Your task to perform on an android device: snooze an email in the gmail app Image 0: 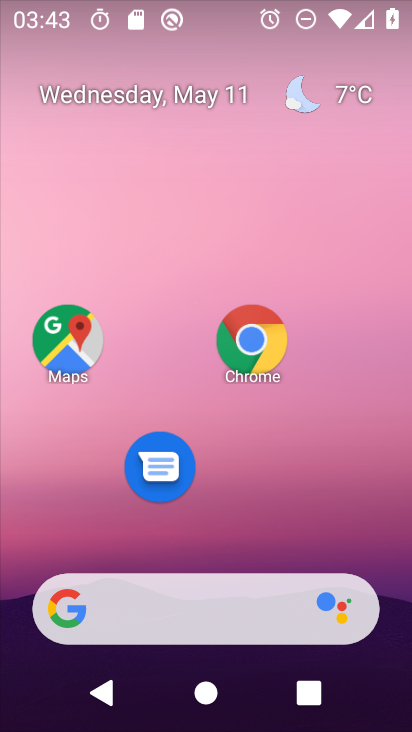
Step 0: drag from (164, 610) to (251, 269)
Your task to perform on an android device: snooze an email in the gmail app Image 1: 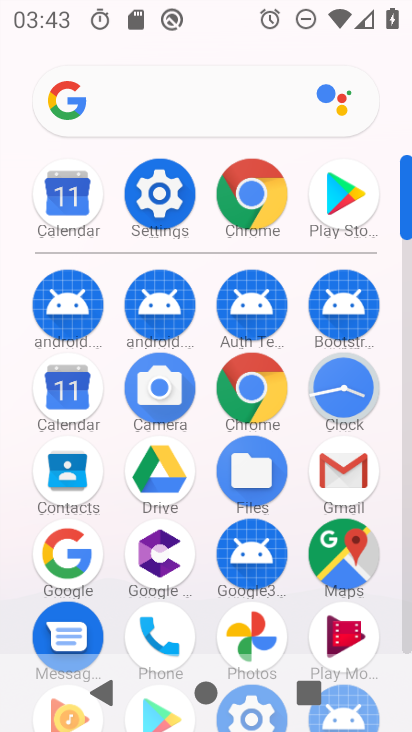
Step 1: click (352, 483)
Your task to perform on an android device: snooze an email in the gmail app Image 2: 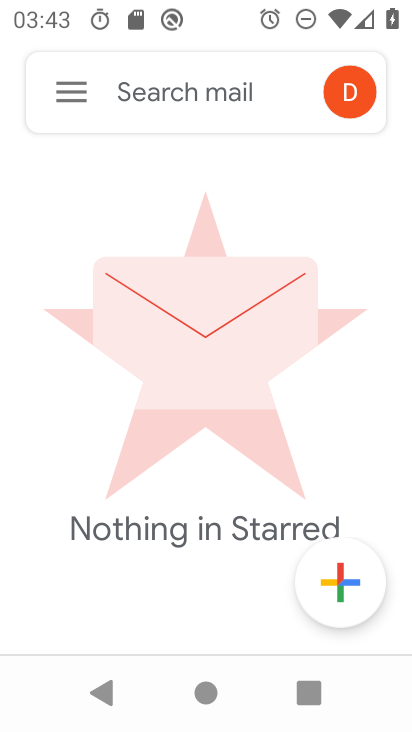
Step 2: click (70, 90)
Your task to perform on an android device: snooze an email in the gmail app Image 3: 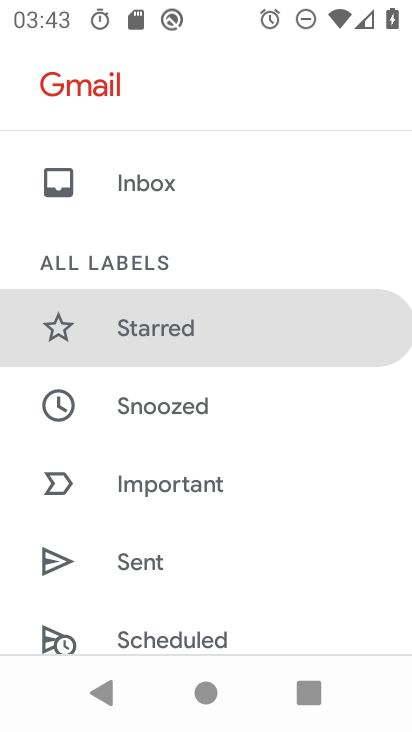
Step 3: drag from (192, 615) to (285, 285)
Your task to perform on an android device: snooze an email in the gmail app Image 4: 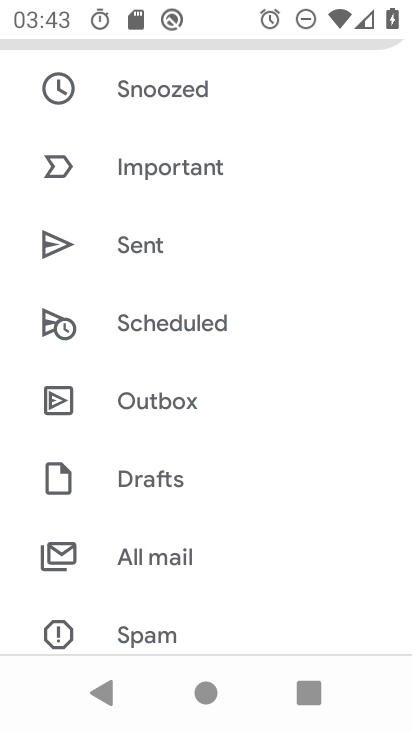
Step 4: click (181, 560)
Your task to perform on an android device: snooze an email in the gmail app Image 5: 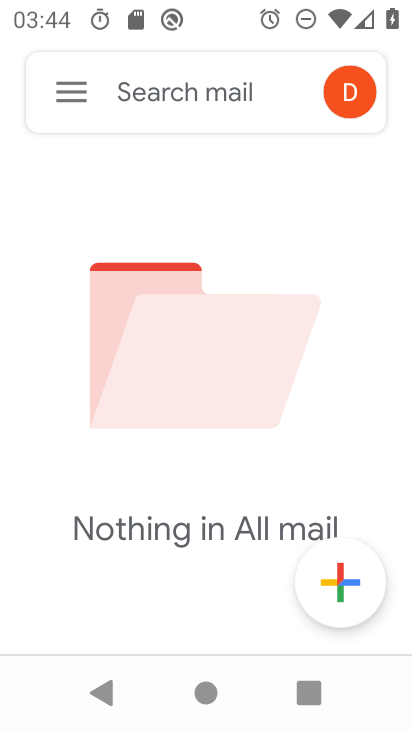
Step 5: task complete